Your task to perform on an android device: change the clock display to analog Image 0: 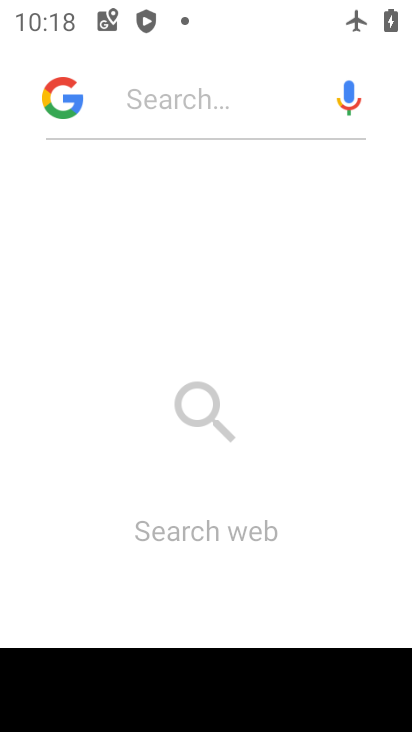
Step 0: press home button
Your task to perform on an android device: change the clock display to analog Image 1: 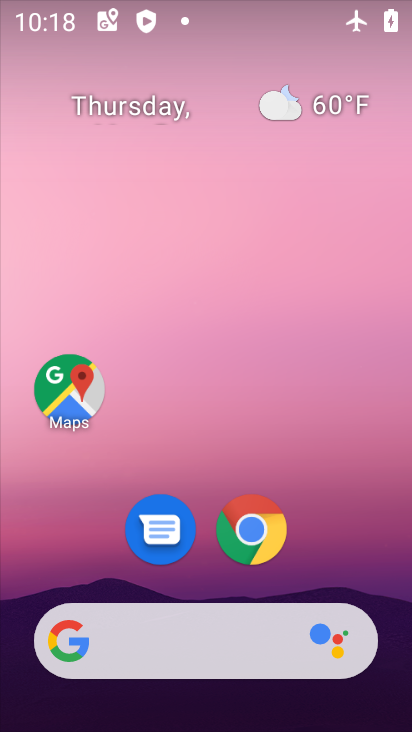
Step 1: drag from (354, 581) to (226, 29)
Your task to perform on an android device: change the clock display to analog Image 2: 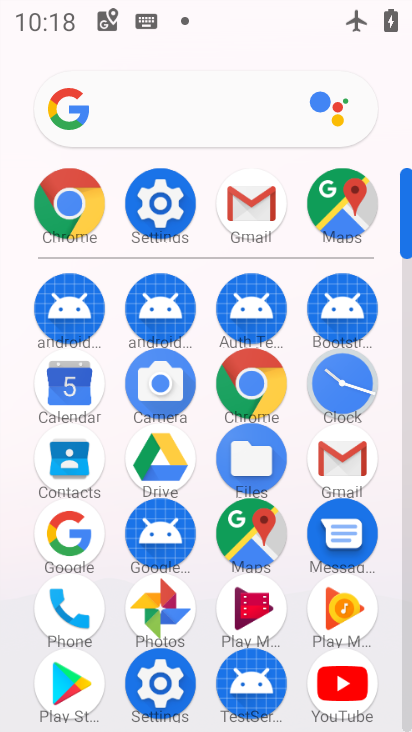
Step 2: click (341, 384)
Your task to perform on an android device: change the clock display to analog Image 3: 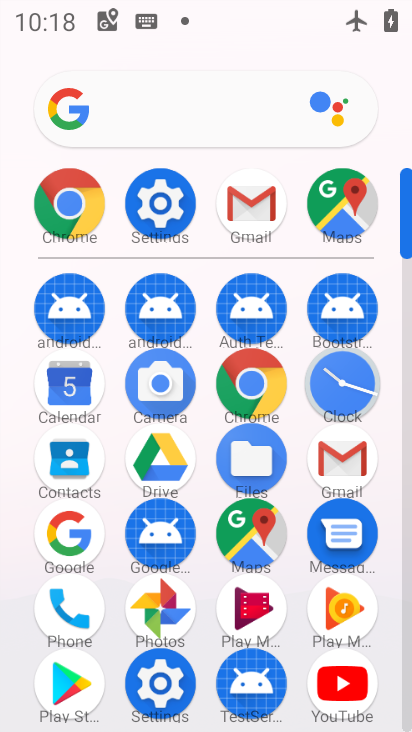
Step 3: click (341, 386)
Your task to perform on an android device: change the clock display to analog Image 4: 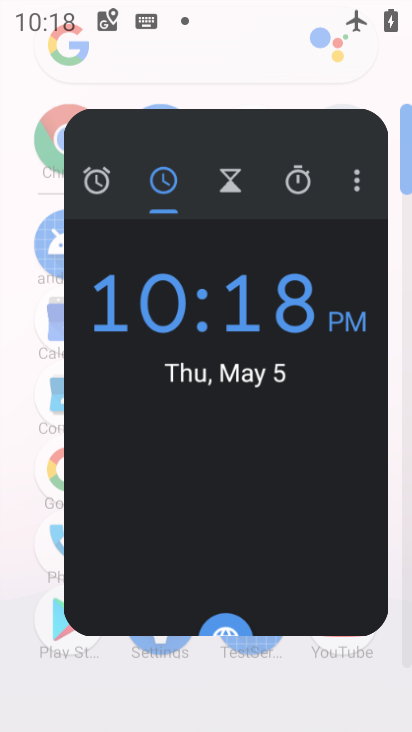
Step 4: click (341, 386)
Your task to perform on an android device: change the clock display to analog Image 5: 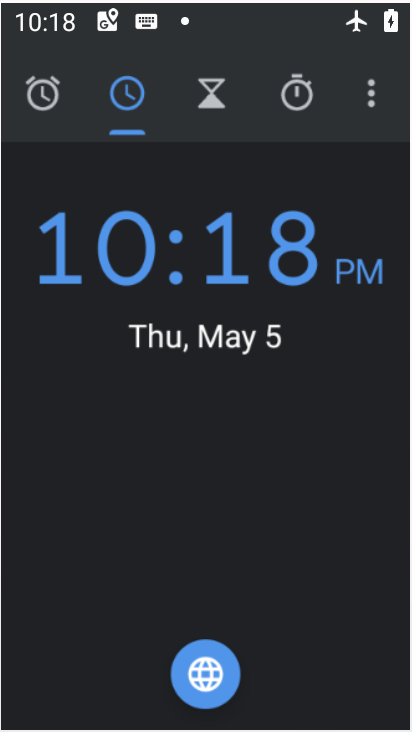
Step 5: click (341, 387)
Your task to perform on an android device: change the clock display to analog Image 6: 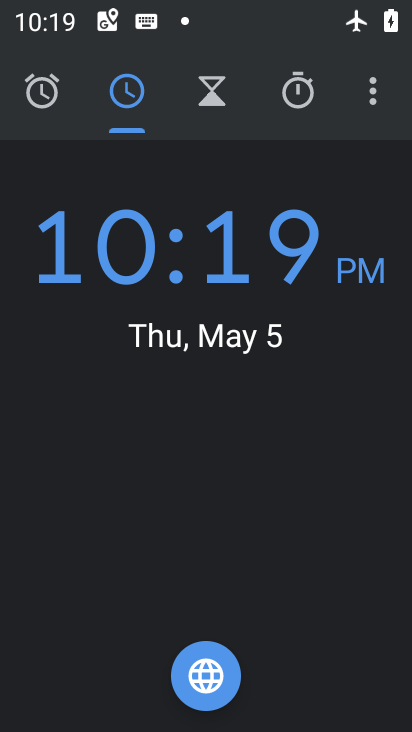
Step 6: click (356, 98)
Your task to perform on an android device: change the clock display to analog Image 7: 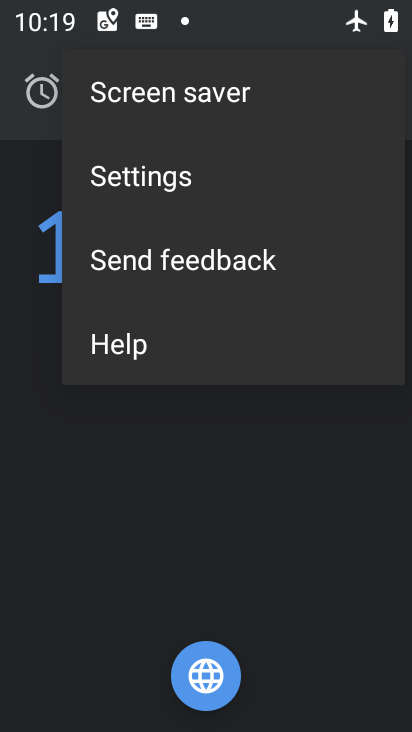
Step 7: click (113, 173)
Your task to perform on an android device: change the clock display to analog Image 8: 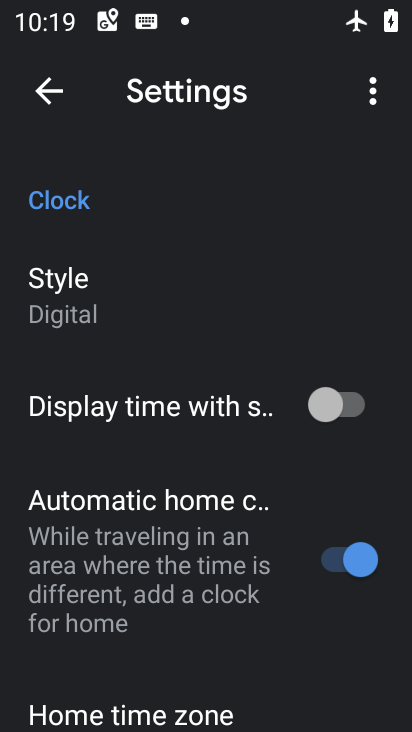
Step 8: click (312, 402)
Your task to perform on an android device: change the clock display to analog Image 9: 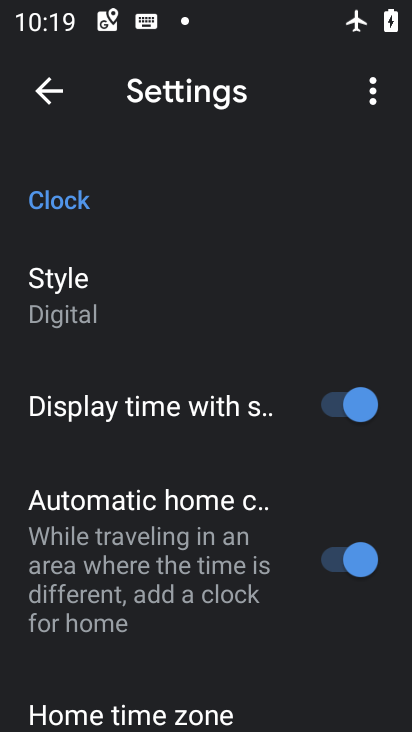
Step 9: click (356, 407)
Your task to perform on an android device: change the clock display to analog Image 10: 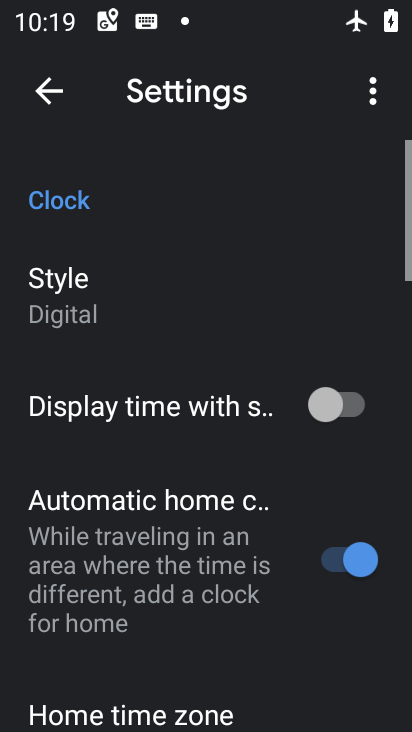
Step 10: click (147, 305)
Your task to perform on an android device: change the clock display to analog Image 11: 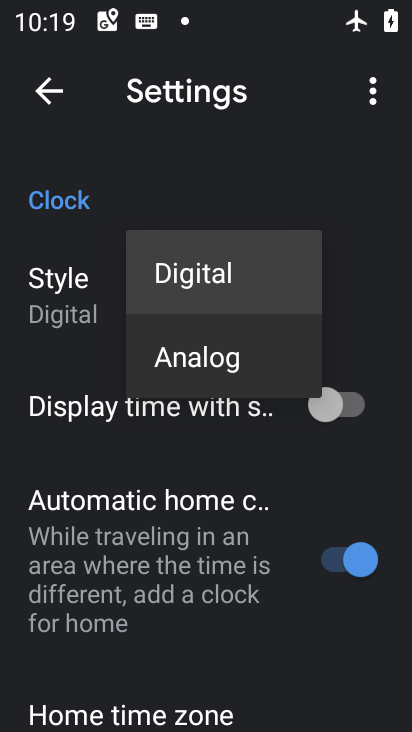
Step 11: click (195, 354)
Your task to perform on an android device: change the clock display to analog Image 12: 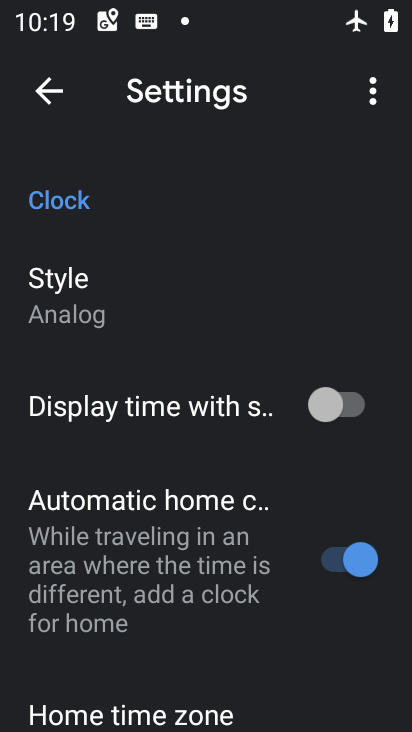
Step 12: task complete